Your task to perform on an android device: toggle sleep mode Image 0: 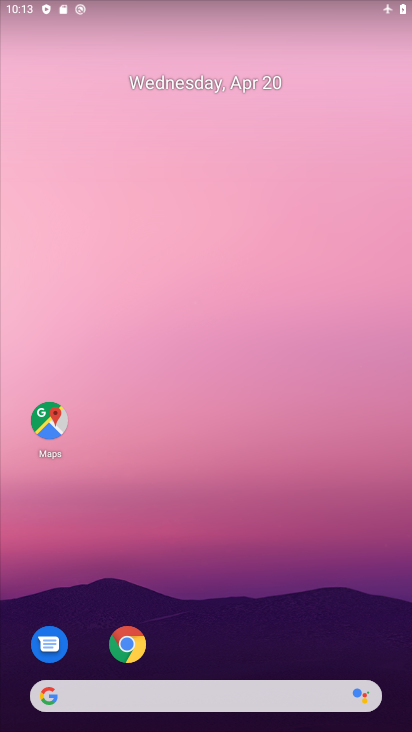
Step 0: drag from (197, 622) to (280, 3)
Your task to perform on an android device: toggle sleep mode Image 1: 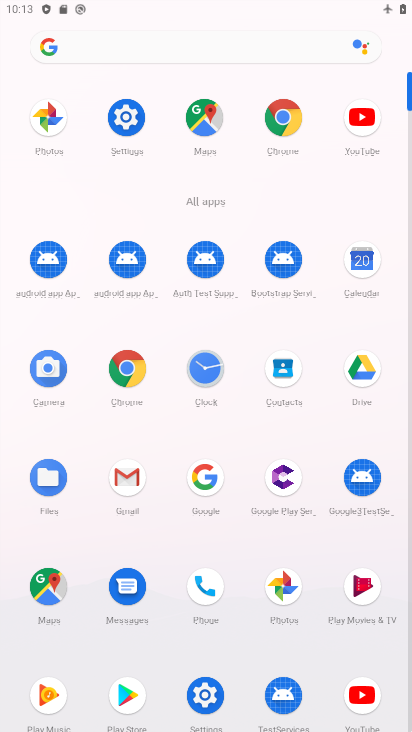
Step 1: click (129, 148)
Your task to perform on an android device: toggle sleep mode Image 2: 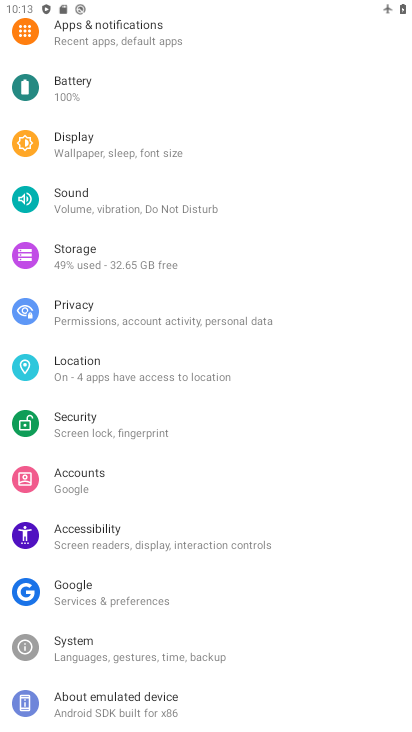
Step 2: click (142, 141)
Your task to perform on an android device: toggle sleep mode Image 3: 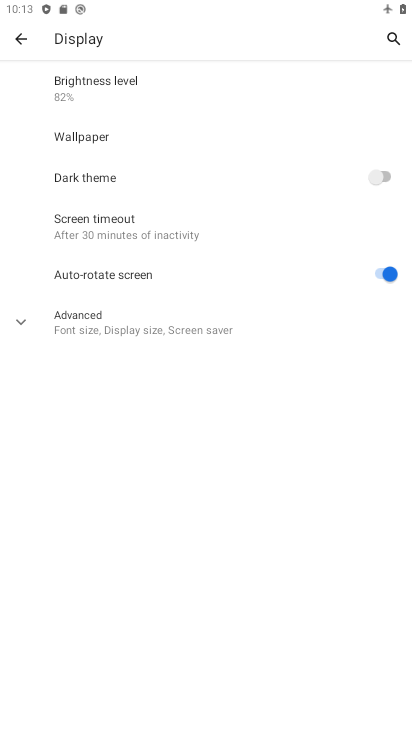
Step 3: click (135, 222)
Your task to perform on an android device: toggle sleep mode Image 4: 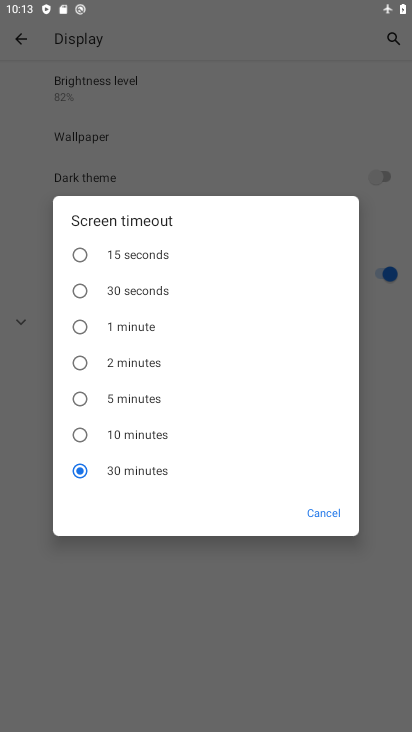
Step 4: click (128, 399)
Your task to perform on an android device: toggle sleep mode Image 5: 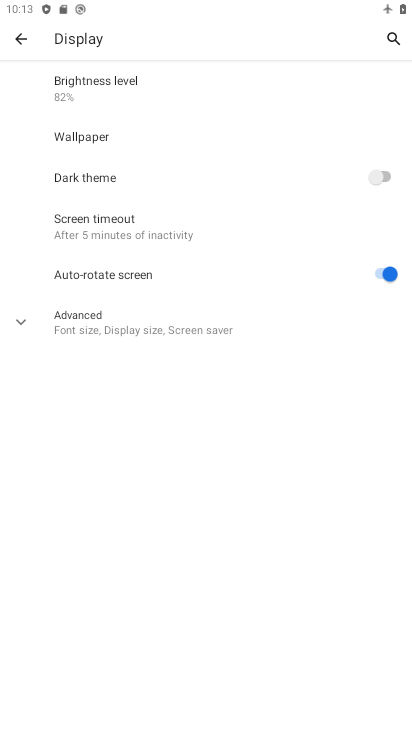
Step 5: task complete